Your task to perform on an android device: Play the last video I watched on Youtube Image 0: 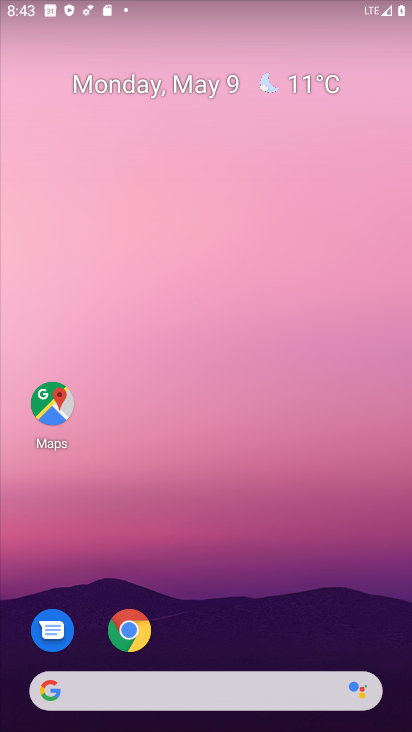
Step 0: drag from (265, 115) to (273, 78)
Your task to perform on an android device: Play the last video I watched on Youtube Image 1: 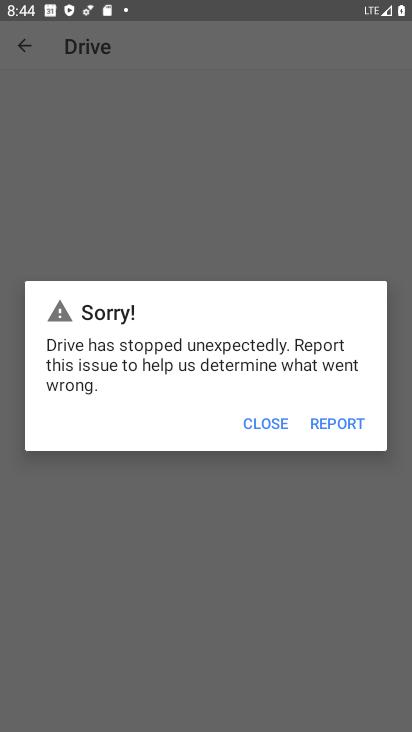
Step 1: click (286, 413)
Your task to perform on an android device: Play the last video I watched on Youtube Image 2: 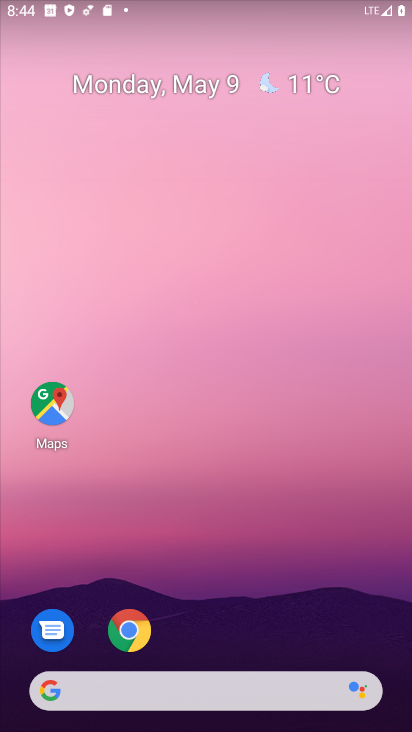
Step 2: drag from (297, 669) to (367, 8)
Your task to perform on an android device: Play the last video I watched on Youtube Image 3: 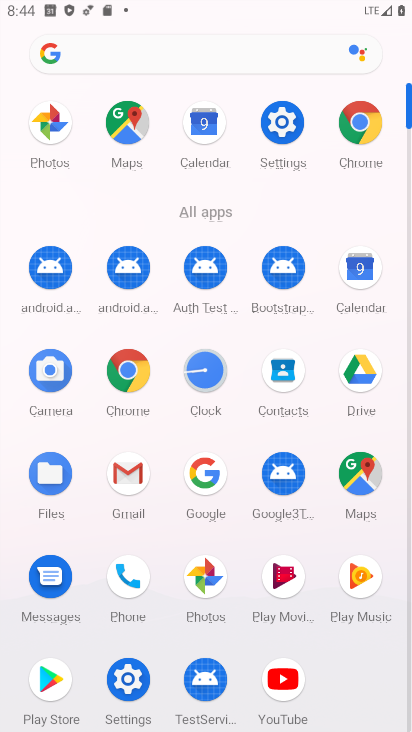
Step 3: click (278, 685)
Your task to perform on an android device: Play the last video I watched on Youtube Image 4: 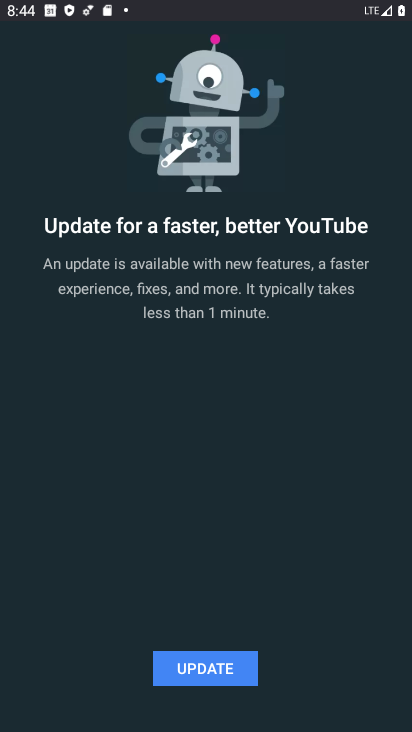
Step 4: click (214, 677)
Your task to perform on an android device: Play the last video I watched on Youtube Image 5: 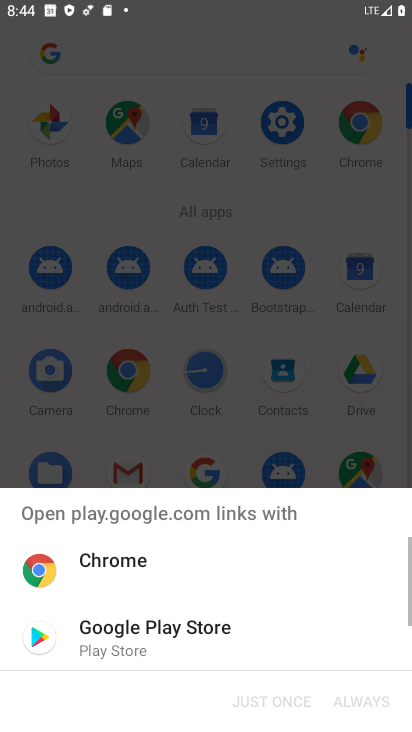
Step 5: click (209, 623)
Your task to perform on an android device: Play the last video I watched on Youtube Image 6: 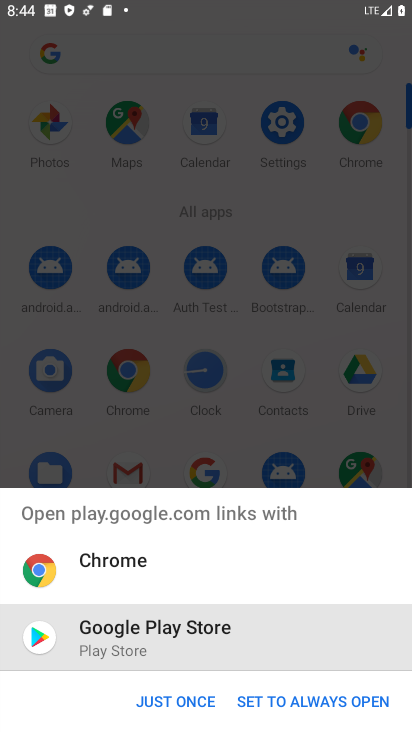
Step 6: click (193, 707)
Your task to perform on an android device: Play the last video I watched on Youtube Image 7: 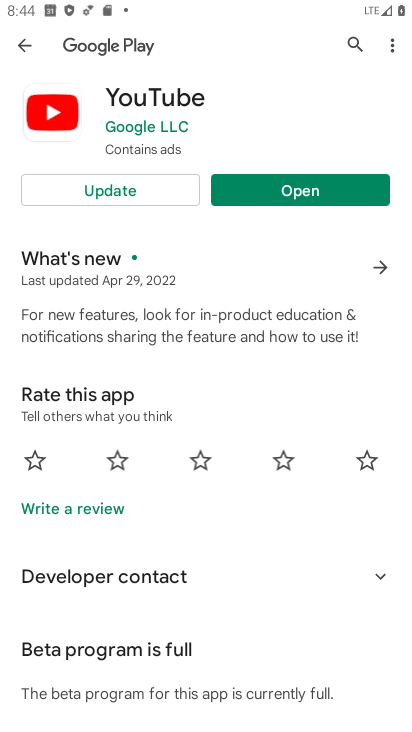
Step 7: click (128, 194)
Your task to perform on an android device: Play the last video I watched on Youtube Image 8: 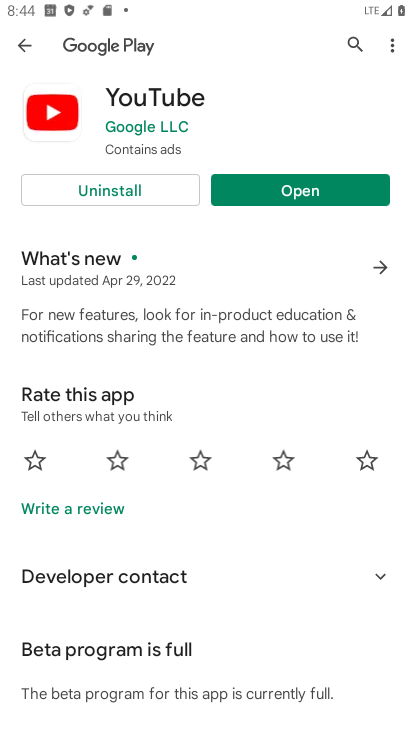
Step 8: click (319, 194)
Your task to perform on an android device: Play the last video I watched on Youtube Image 9: 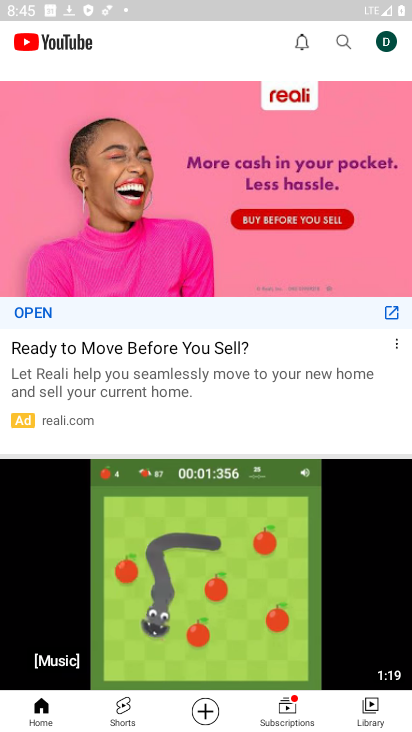
Step 9: click (379, 710)
Your task to perform on an android device: Play the last video I watched on Youtube Image 10: 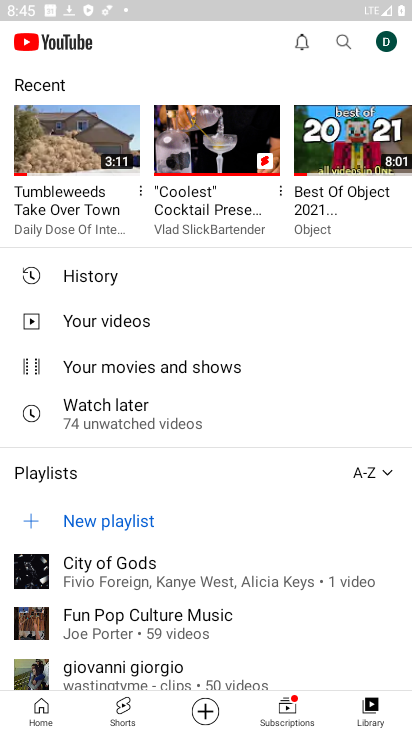
Step 10: click (64, 159)
Your task to perform on an android device: Play the last video I watched on Youtube Image 11: 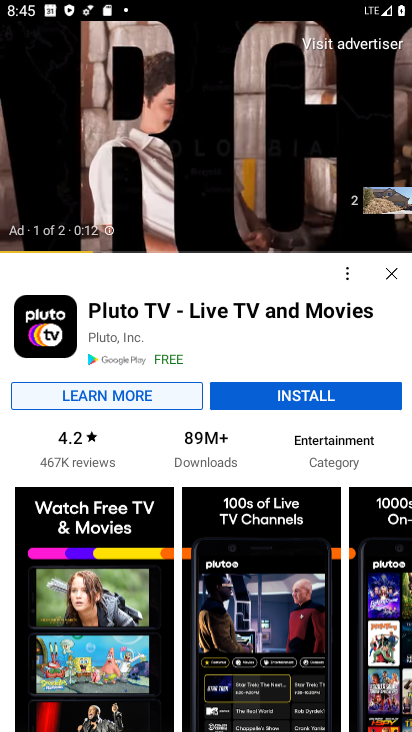
Step 11: click (397, 274)
Your task to perform on an android device: Play the last video I watched on Youtube Image 12: 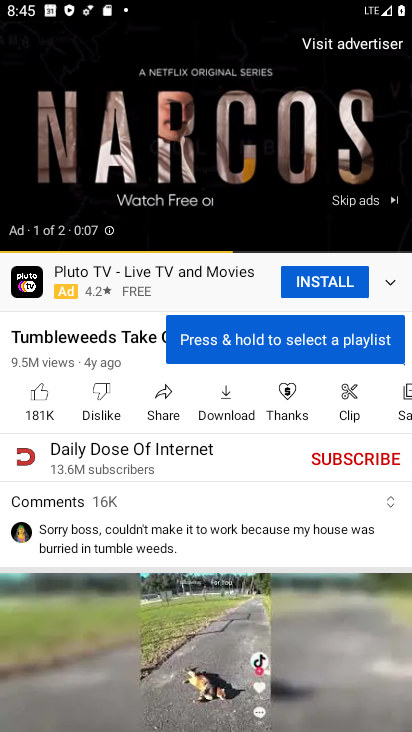
Step 12: click (369, 189)
Your task to perform on an android device: Play the last video I watched on Youtube Image 13: 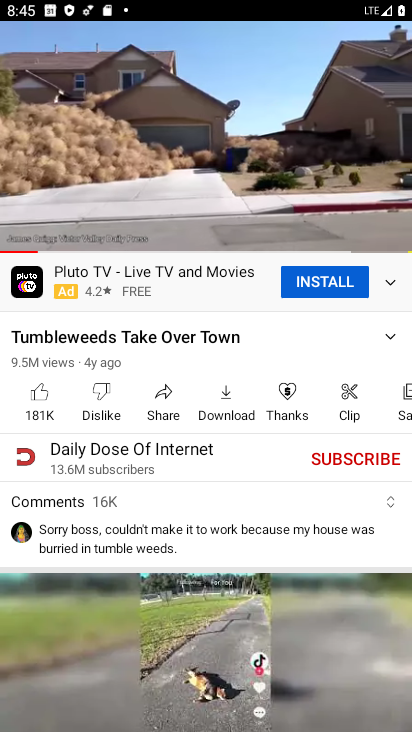
Step 13: task complete